Your task to perform on an android device: change notification settings in the gmail app Image 0: 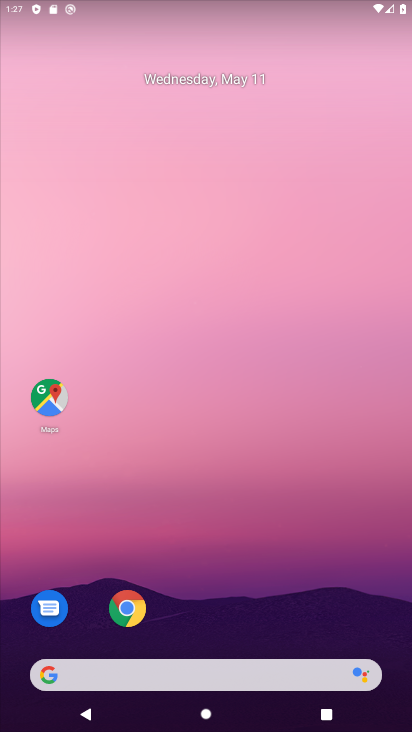
Step 0: click (172, 637)
Your task to perform on an android device: change notification settings in the gmail app Image 1: 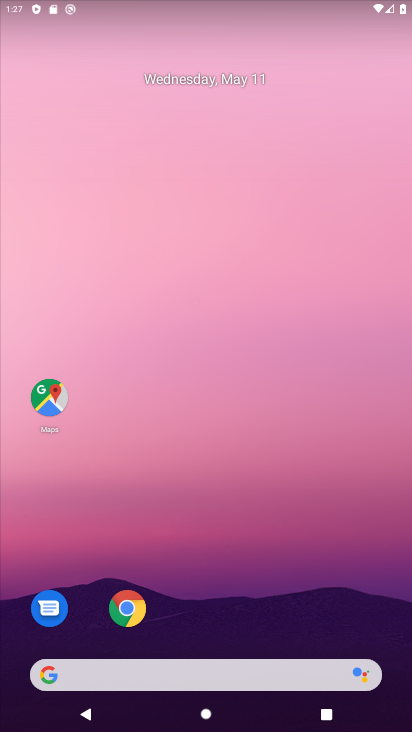
Step 1: drag from (258, 591) to (215, 154)
Your task to perform on an android device: change notification settings in the gmail app Image 2: 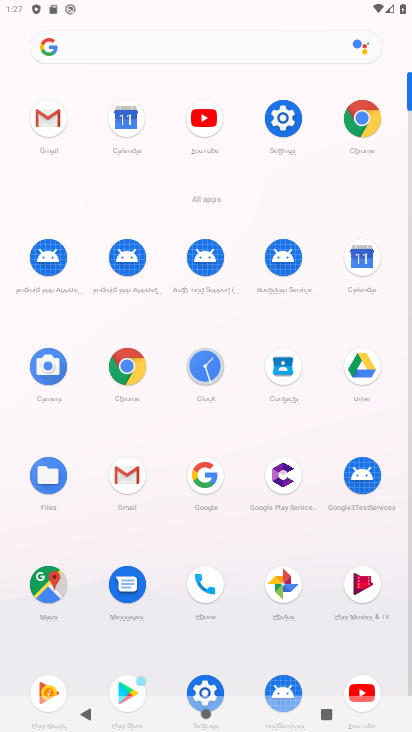
Step 2: click (49, 121)
Your task to perform on an android device: change notification settings in the gmail app Image 3: 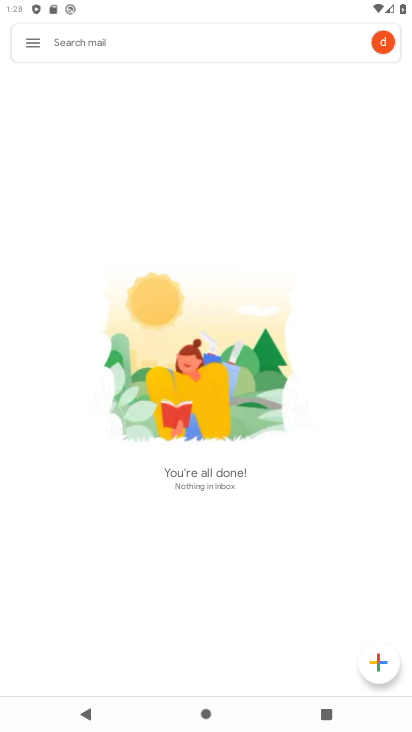
Step 3: click (54, 114)
Your task to perform on an android device: change notification settings in the gmail app Image 4: 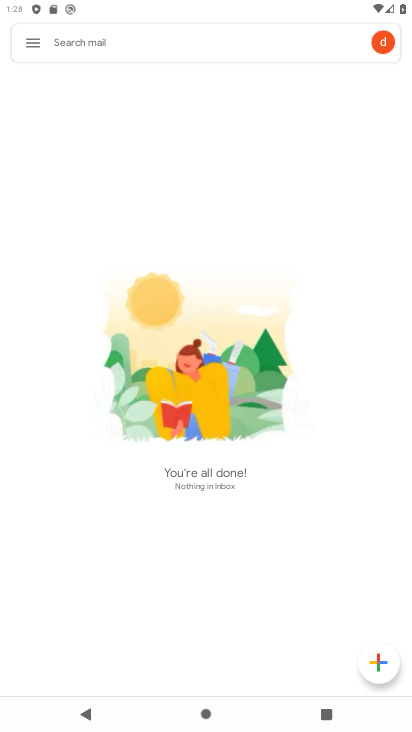
Step 4: click (33, 42)
Your task to perform on an android device: change notification settings in the gmail app Image 5: 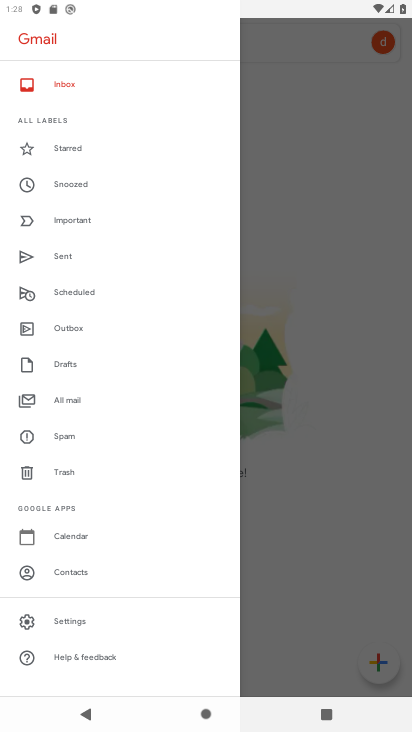
Step 5: click (89, 621)
Your task to perform on an android device: change notification settings in the gmail app Image 6: 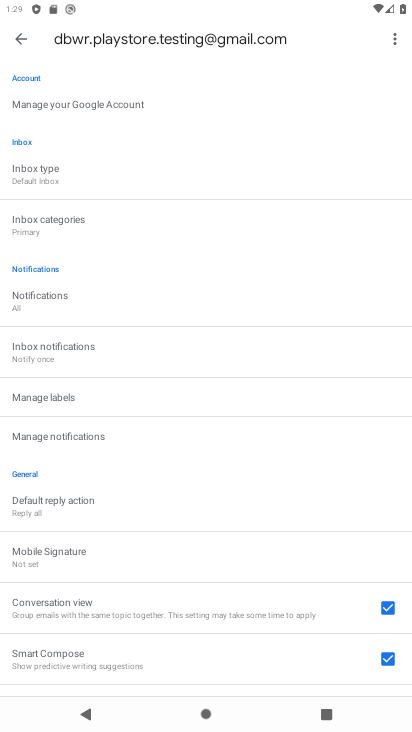
Step 6: click (88, 441)
Your task to perform on an android device: change notification settings in the gmail app Image 7: 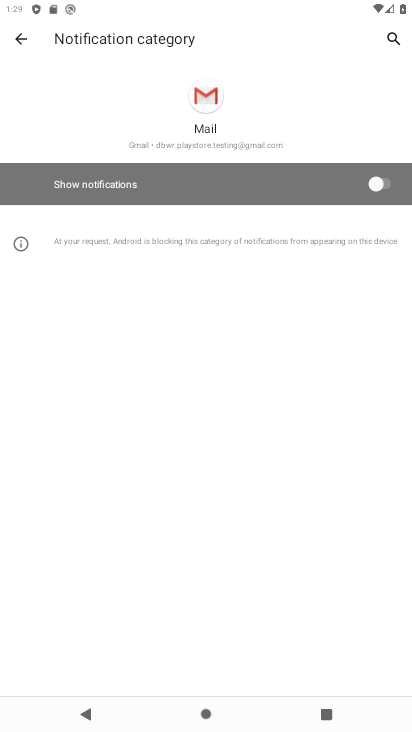
Step 7: click (388, 190)
Your task to perform on an android device: change notification settings in the gmail app Image 8: 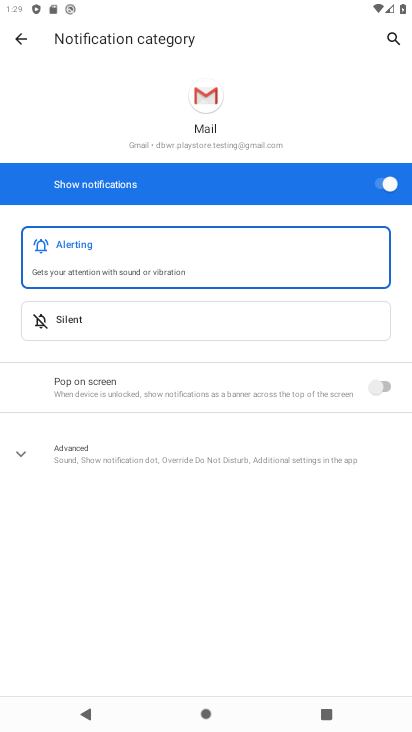
Step 8: task complete